Your task to perform on an android device: snooze an email in the gmail app Image 0: 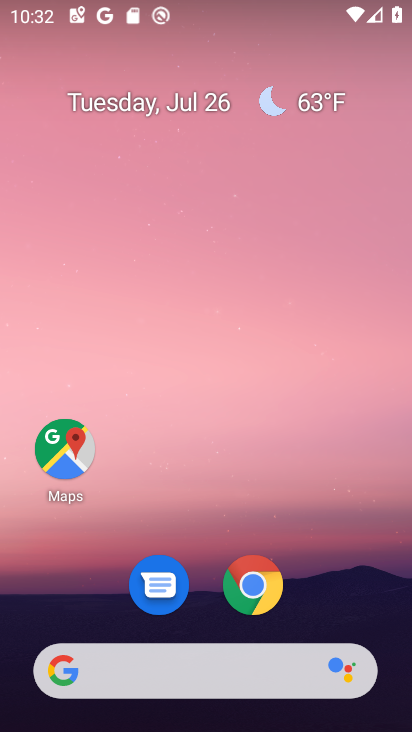
Step 0: drag from (265, 471) to (268, 3)
Your task to perform on an android device: snooze an email in the gmail app Image 1: 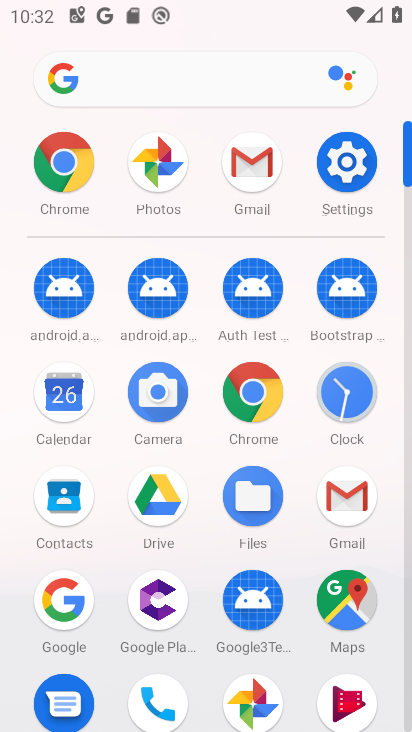
Step 1: click (260, 160)
Your task to perform on an android device: snooze an email in the gmail app Image 2: 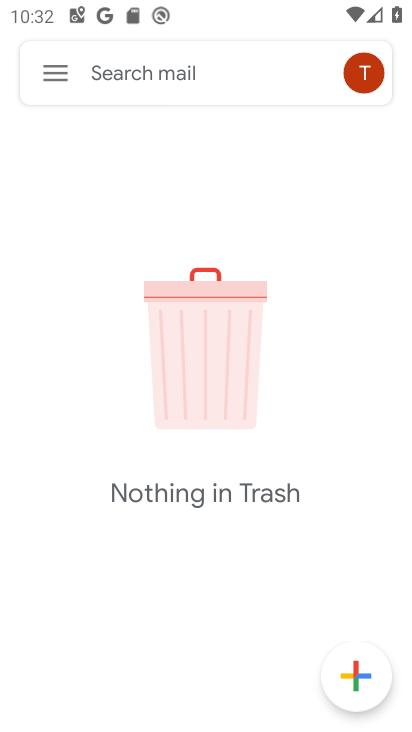
Step 2: click (65, 74)
Your task to perform on an android device: snooze an email in the gmail app Image 3: 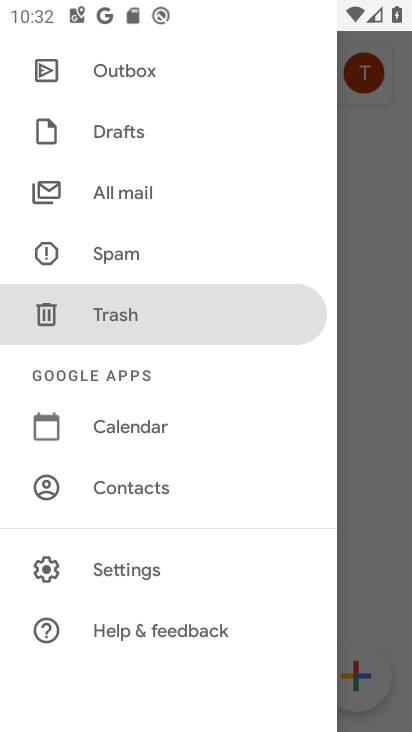
Step 3: click (122, 185)
Your task to perform on an android device: snooze an email in the gmail app Image 4: 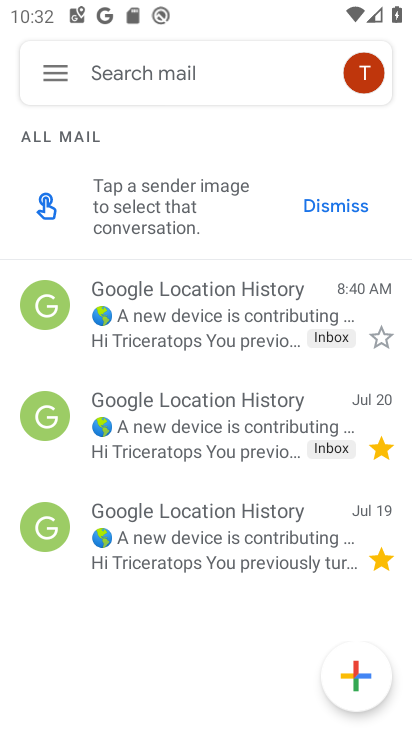
Step 4: click (238, 319)
Your task to perform on an android device: snooze an email in the gmail app Image 5: 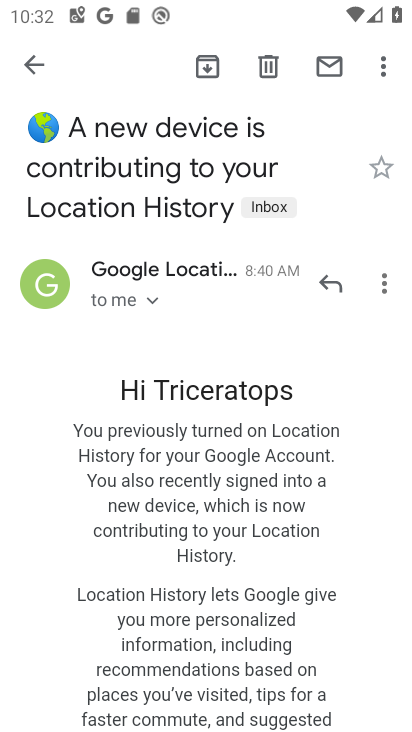
Step 5: click (384, 61)
Your task to perform on an android device: snooze an email in the gmail app Image 6: 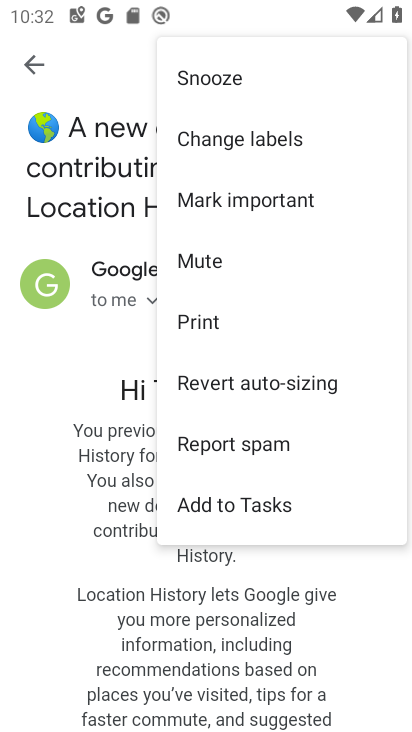
Step 6: click (276, 75)
Your task to perform on an android device: snooze an email in the gmail app Image 7: 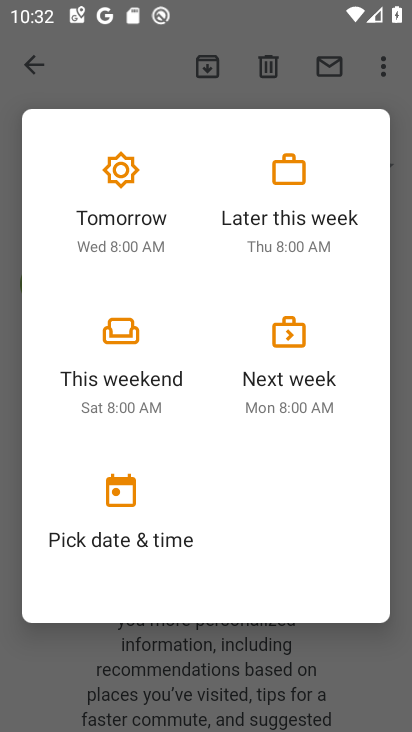
Step 7: click (151, 208)
Your task to perform on an android device: snooze an email in the gmail app Image 8: 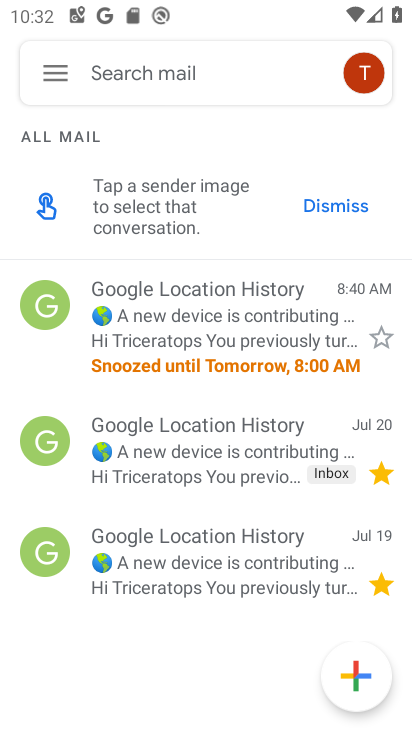
Step 8: task complete